Your task to perform on an android device: Go to wifi settings Image 0: 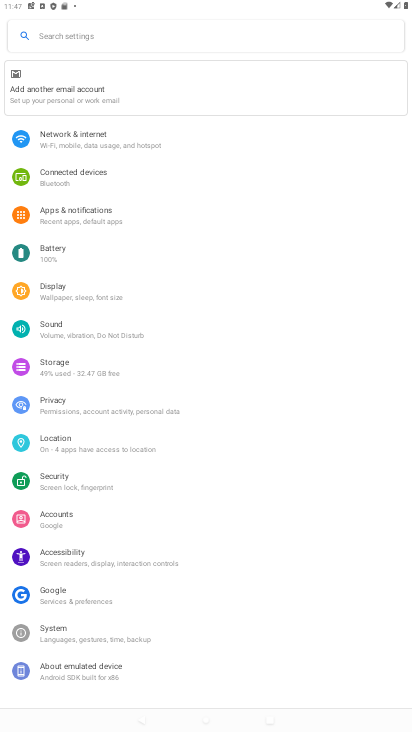
Step 0: press home button
Your task to perform on an android device: Go to wifi settings Image 1: 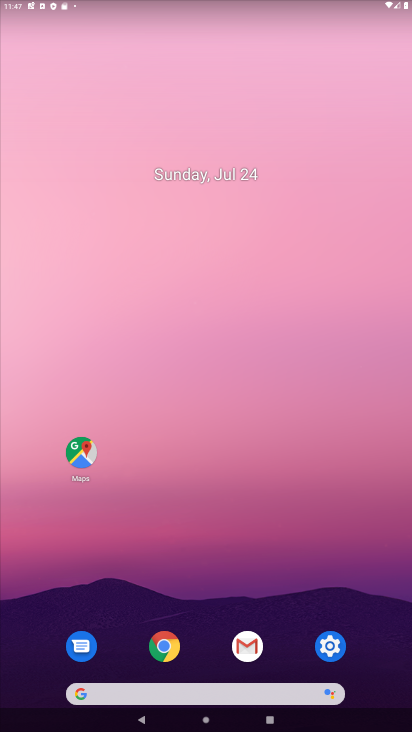
Step 1: click (338, 652)
Your task to perform on an android device: Go to wifi settings Image 2: 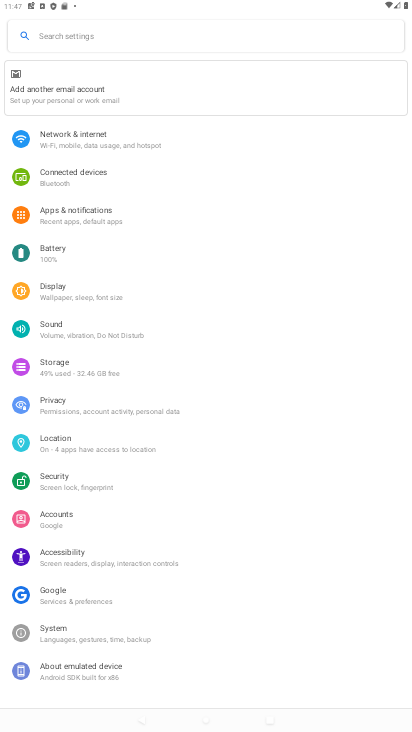
Step 2: click (101, 131)
Your task to perform on an android device: Go to wifi settings Image 3: 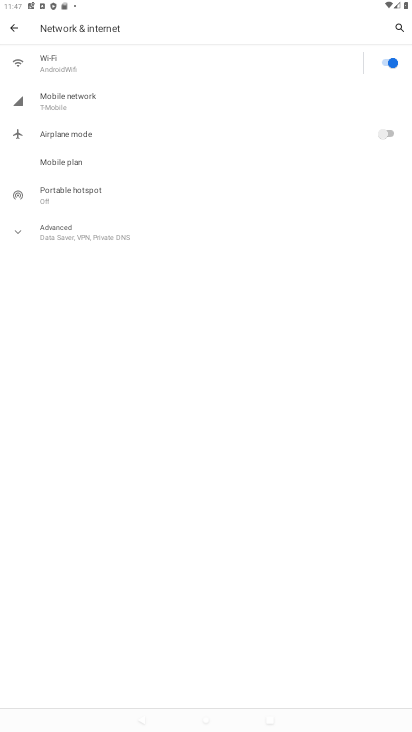
Step 3: click (123, 73)
Your task to perform on an android device: Go to wifi settings Image 4: 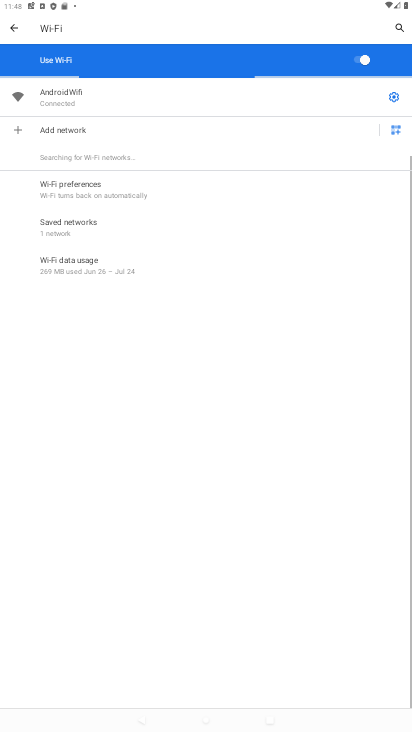
Step 4: task complete